Your task to perform on an android device: Open the calendar app, open the side menu, and click the "Day" option Image 0: 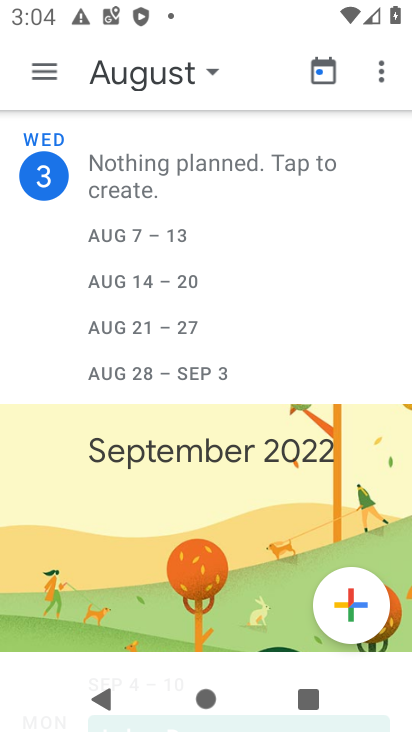
Step 0: press home button
Your task to perform on an android device: Open the calendar app, open the side menu, and click the "Day" option Image 1: 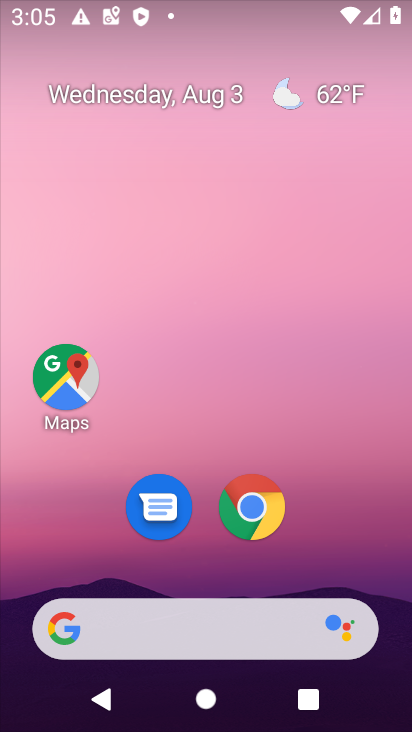
Step 1: drag from (339, 533) to (107, 140)
Your task to perform on an android device: Open the calendar app, open the side menu, and click the "Day" option Image 2: 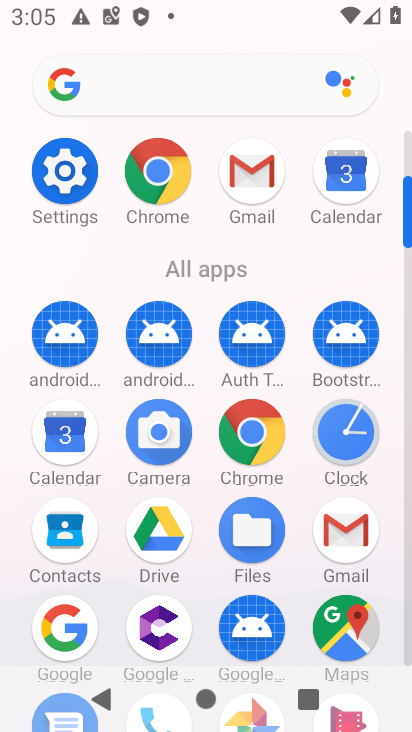
Step 2: click (379, 180)
Your task to perform on an android device: Open the calendar app, open the side menu, and click the "Day" option Image 3: 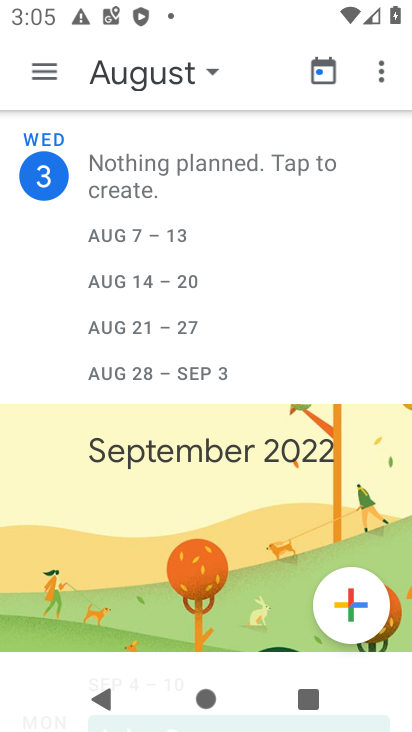
Step 3: click (46, 72)
Your task to perform on an android device: Open the calendar app, open the side menu, and click the "Day" option Image 4: 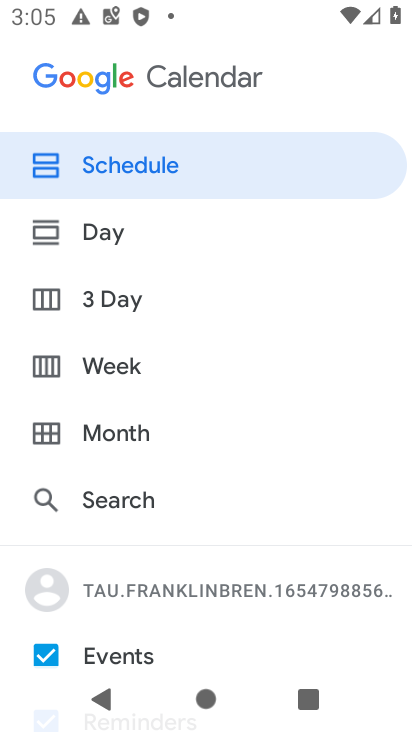
Step 4: click (80, 230)
Your task to perform on an android device: Open the calendar app, open the side menu, and click the "Day" option Image 5: 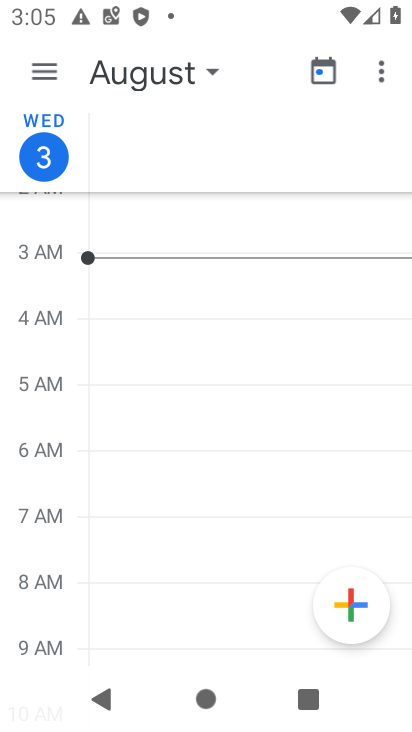
Step 5: task complete